Your task to perform on an android device: all mails in gmail Image 0: 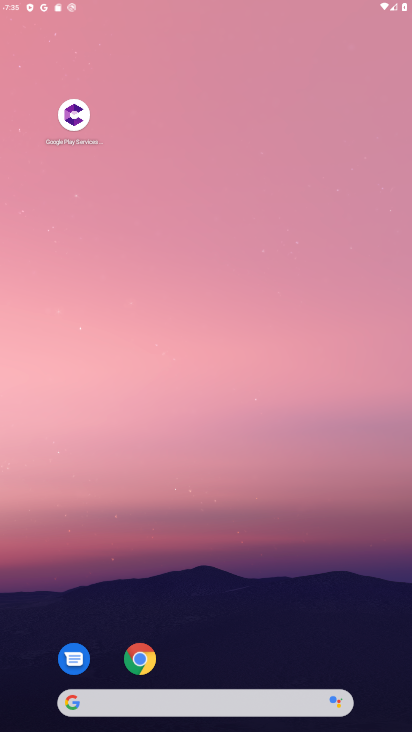
Step 0: press back button
Your task to perform on an android device: all mails in gmail Image 1: 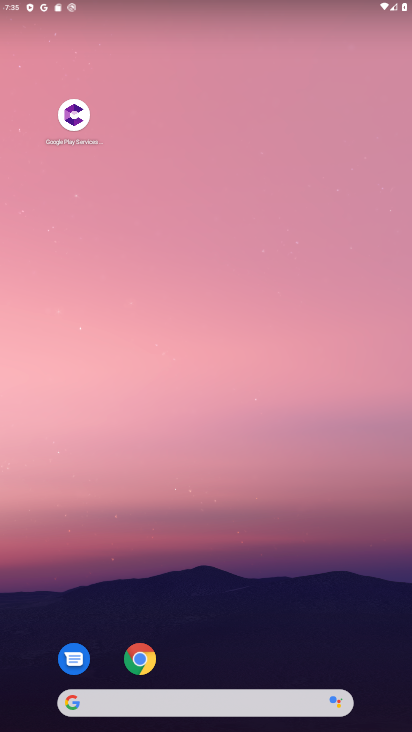
Step 1: drag from (260, 634) to (291, 200)
Your task to perform on an android device: all mails in gmail Image 2: 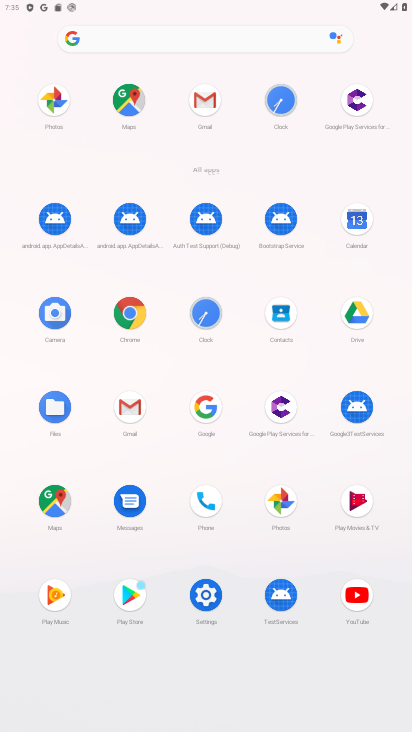
Step 2: click (218, 112)
Your task to perform on an android device: all mails in gmail Image 3: 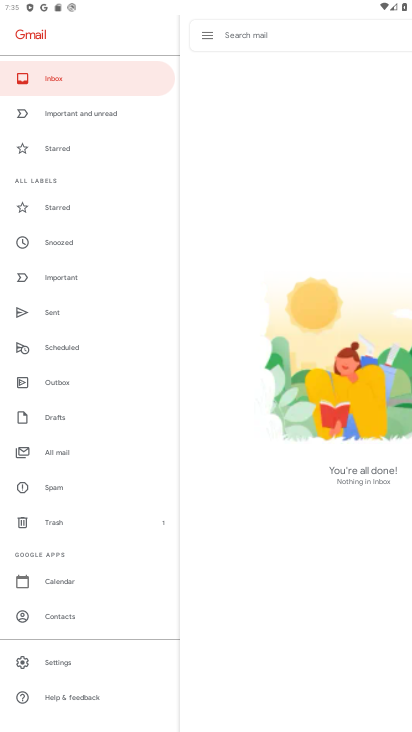
Step 3: click (83, 454)
Your task to perform on an android device: all mails in gmail Image 4: 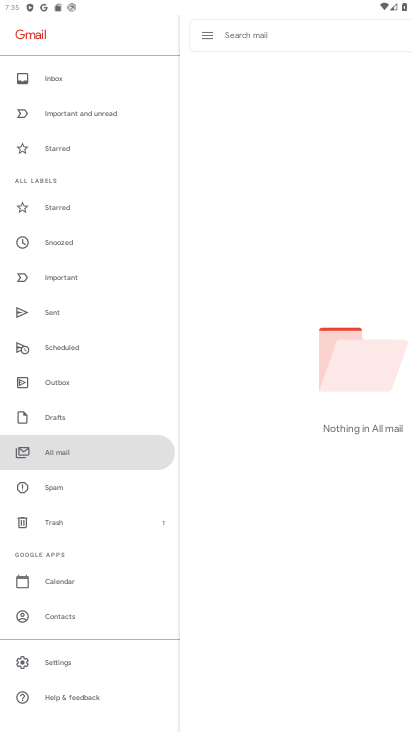
Step 4: task complete